Your task to perform on an android device: Go to eBay Image 0: 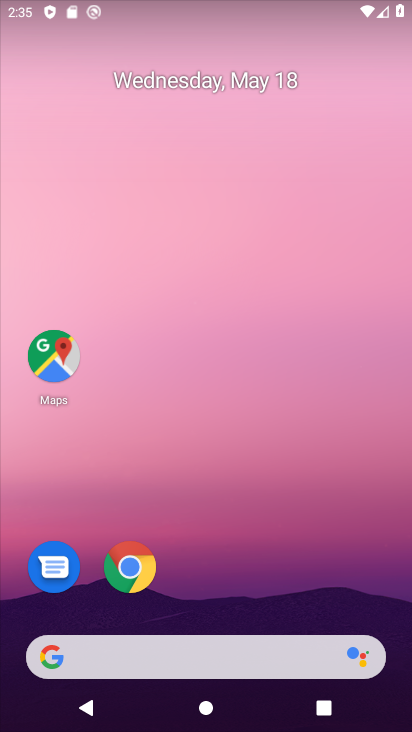
Step 0: click (121, 580)
Your task to perform on an android device: Go to eBay Image 1: 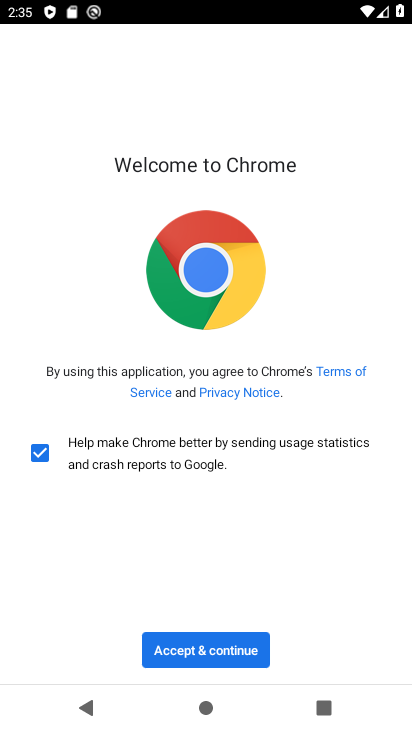
Step 1: click (220, 646)
Your task to perform on an android device: Go to eBay Image 2: 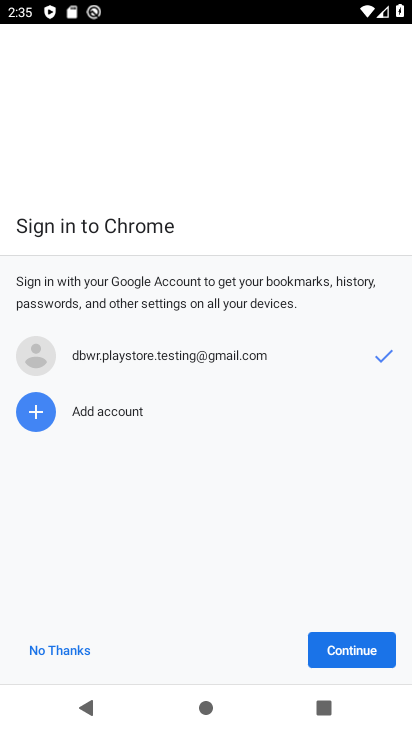
Step 2: click (350, 652)
Your task to perform on an android device: Go to eBay Image 3: 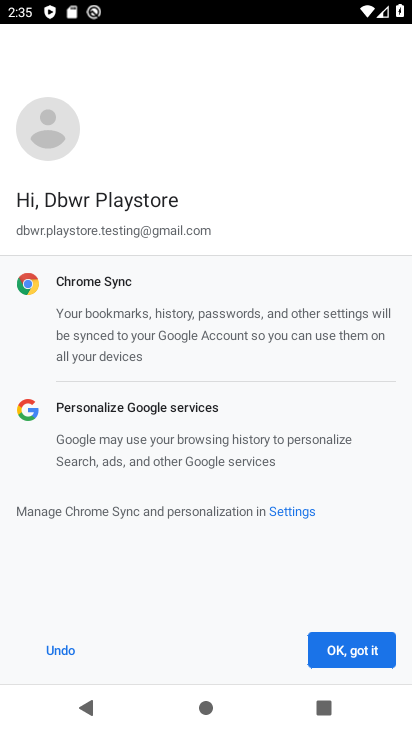
Step 3: click (330, 651)
Your task to perform on an android device: Go to eBay Image 4: 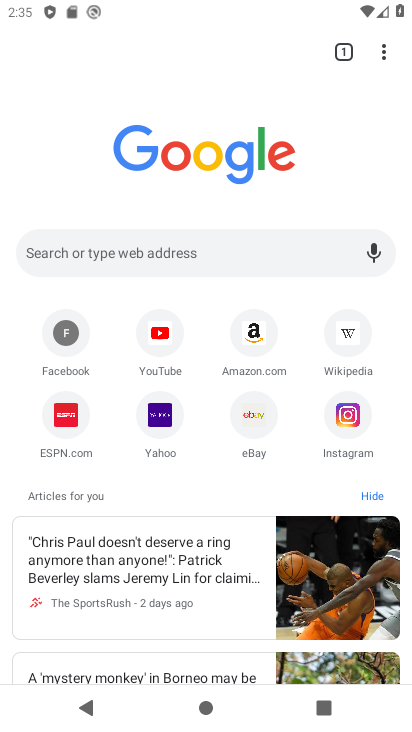
Step 4: click (253, 436)
Your task to perform on an android device: Go to eBay Image 5: 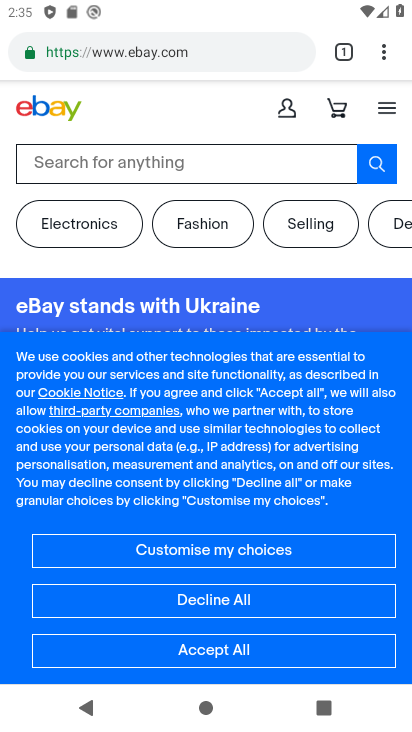
Step 5: click (159, 60)
Your task to perform on an android device: Go to eBay Image 6: 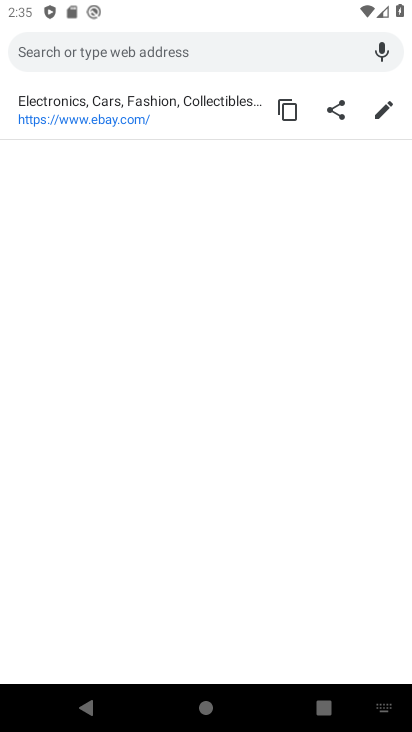
Step 6: task complete